Your task to perform on an android device: Open the calendar app, open the side menu, and click the "Day" option Image 0: 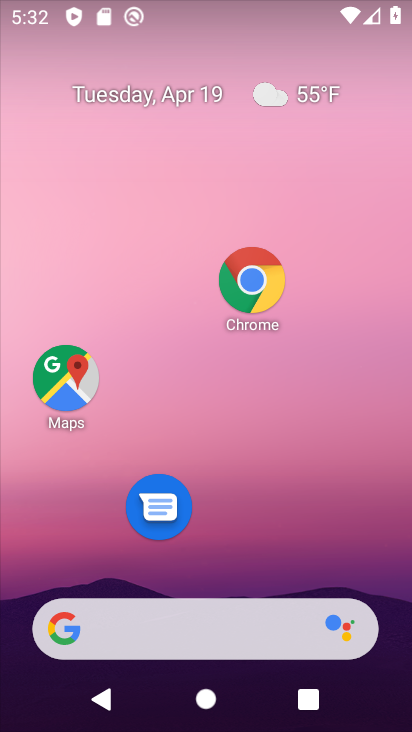
Step 0: drag from (197, 602) to (207, 307)
Your task to perform on an android device: Open the calendar app, open the side menu, and click the "Day" option Image 1: 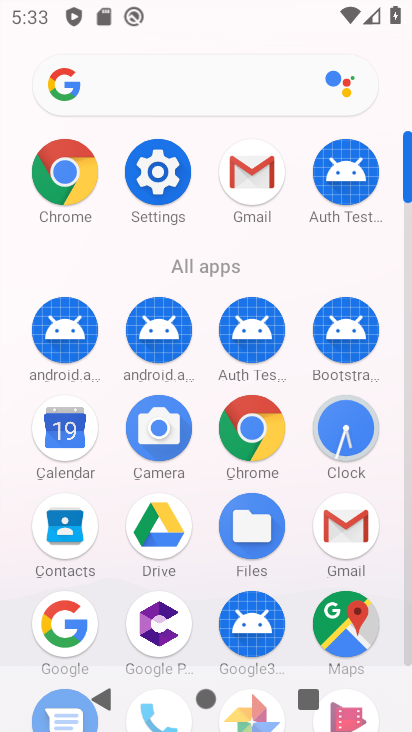
Step 1: click (42, 423)
Your task to perform on an android device: Open the calendar app, open the side menu, and click the "Day" option Image 2: 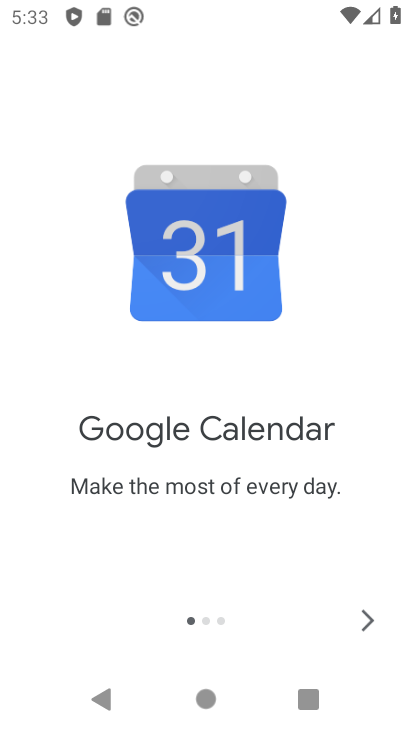
Step 2: click (356, 628)
Your task to perform on an android device: Open the calendar app, open the side menu, and click the "Day" option Image 3: 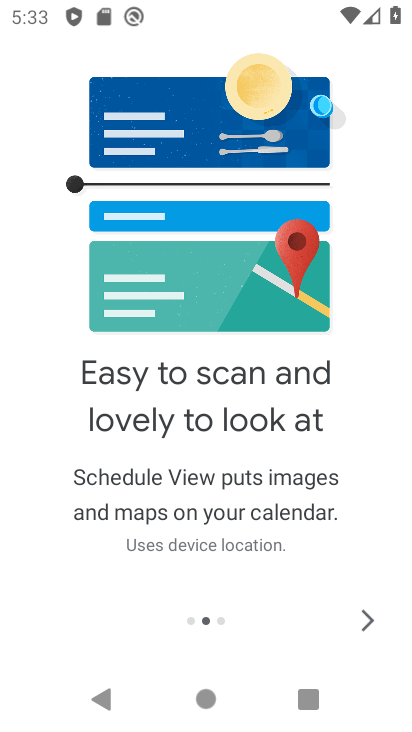
Step 3: click (356, 629)
Your task to perform on an android device: Open the calendar app, open the side menu, and click the "Day" option Image 4: 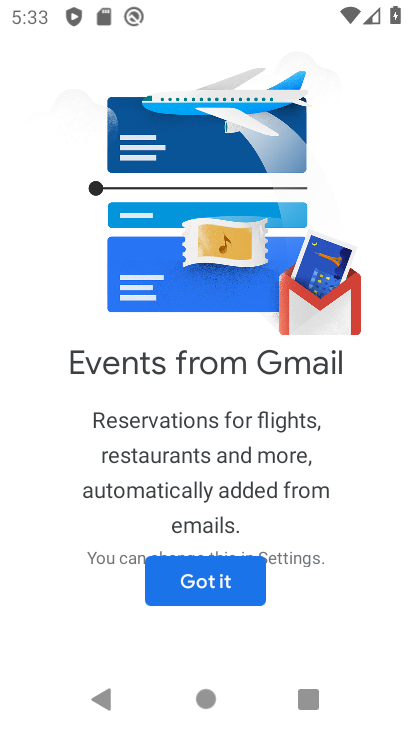
Step 4: click (241, 578)
Your task to perform on an android device: Open the calendar app, open the side menu, and click the "Day" option Image 5: 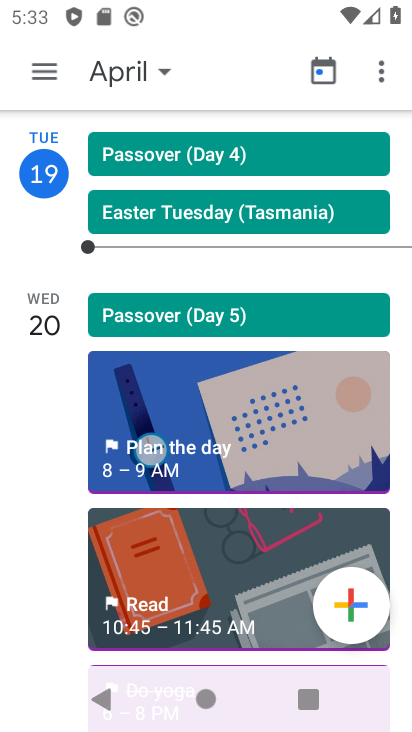
Step 5: click (43, 63)
Your task to perform on an android device: Open the calendar app, open the side menu, and click the "Day" option Image 6: 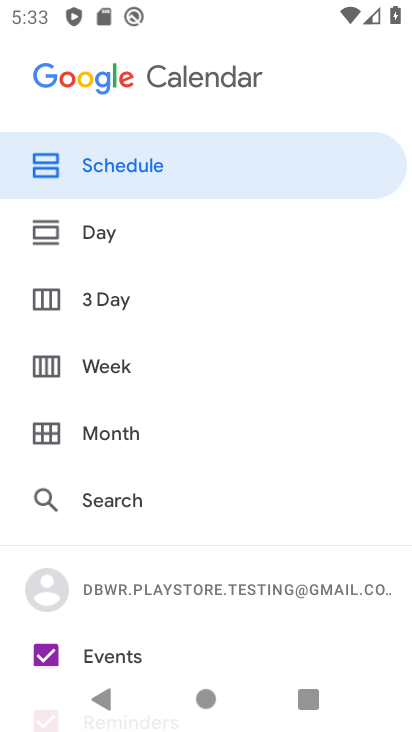
Step 6: click (90, 239)
Your task to perform on an android device: Open the calendar app, open the side menu, and click the "Day" option Image 7: 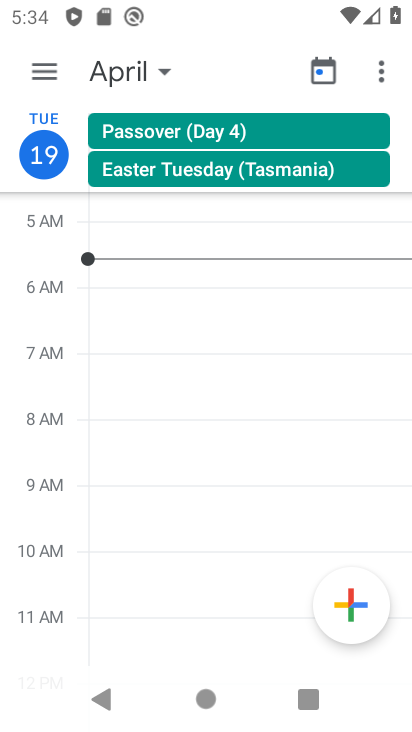
Step 7: task complete